Your task to perform on an android device: Go to sound settings Image 0: 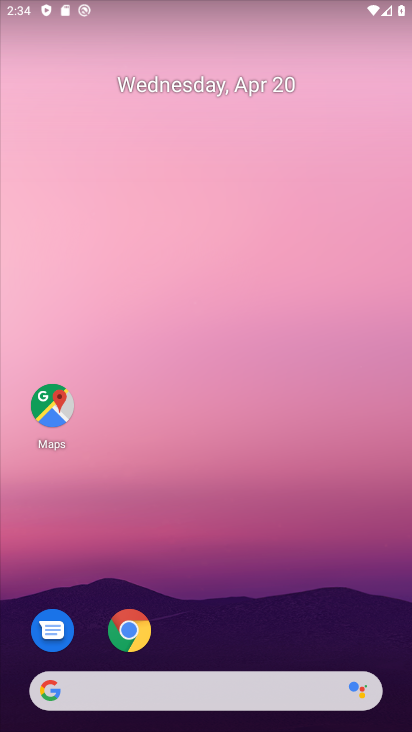
Step 0: drag from (184, 726) to (140, 28)
Your task to perform on an android device: Go to sound settings Image 1: 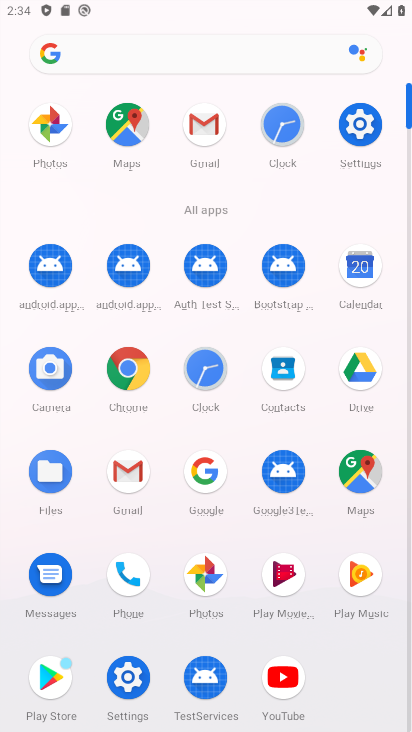
Step 1: click (366, 125)
Your task to perform on an android device: Go to sound settings Image 2: 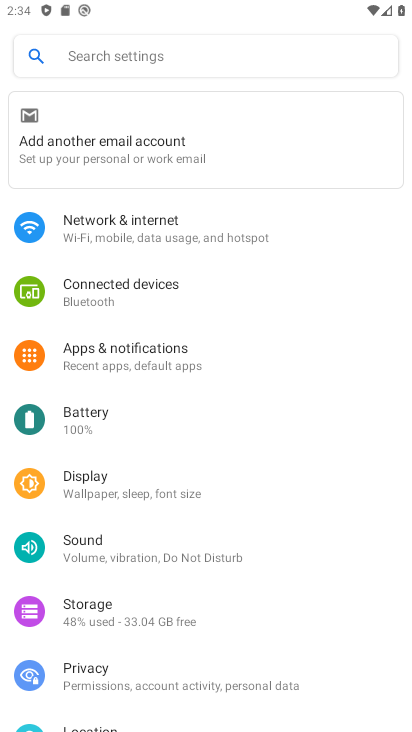
Step 2: click (64, 546)
Your task to perform on an android device: Go to sound settings Image 3: 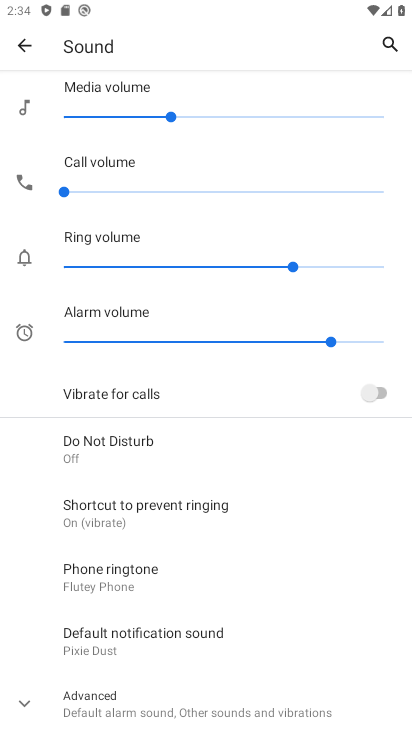
Step 3: task complete